Your task to perform on an android device: Open Google Image 0: 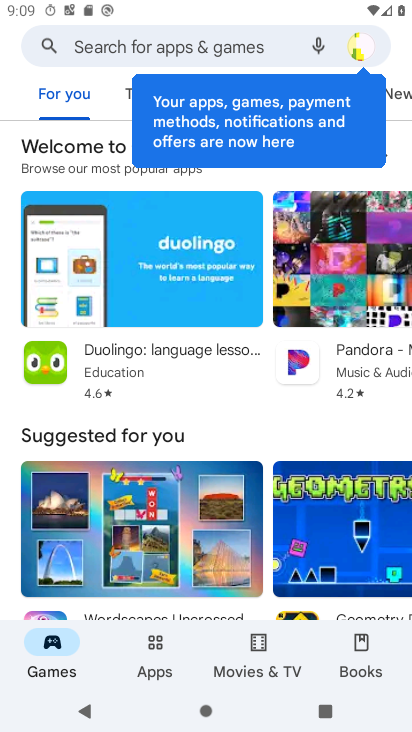
Step 0: press home button
Your task to perform on an android device: Open Google Image 1: 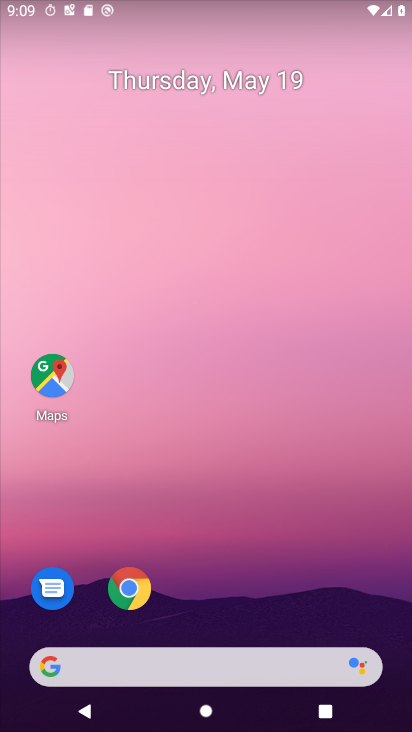
Step 1: drag from (161, 672) to (306, 156)
Your task to perform on an android device: Open Google Image 2: 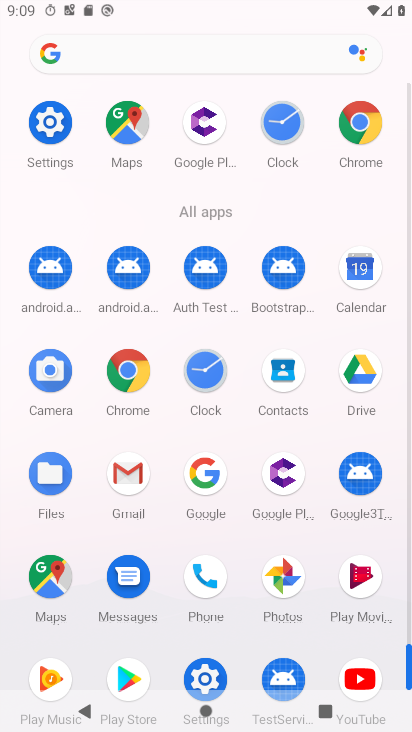
Step 2: click (215, 477)
Your task to perform on an android device: Open Google Image 3: 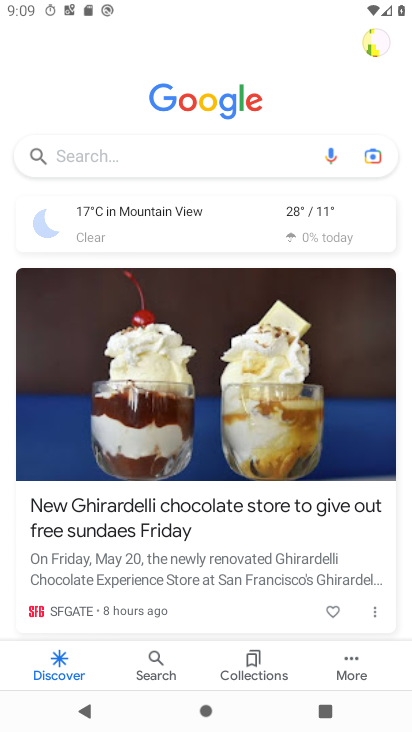
Step 3: task complete